Your task to perform on an android device: Go to Amazon Image 0: 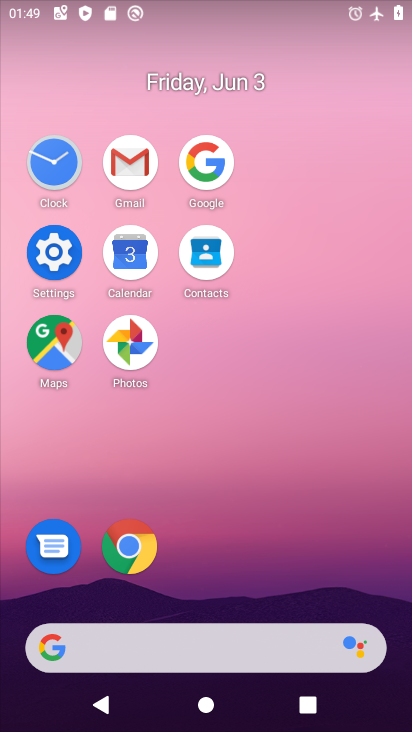
Step 0: click (145, 545)
Your task to perform on an android device: Go to Amazon Image 1: 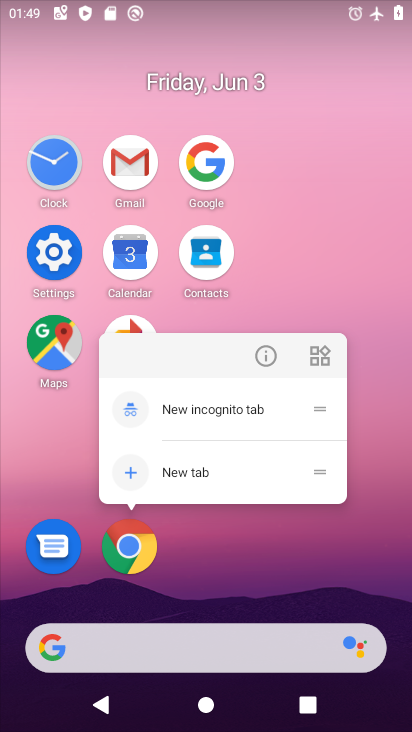
Step 1: click (123, 536)
Your task to perform on an android device: Go to Amazon Image 2: 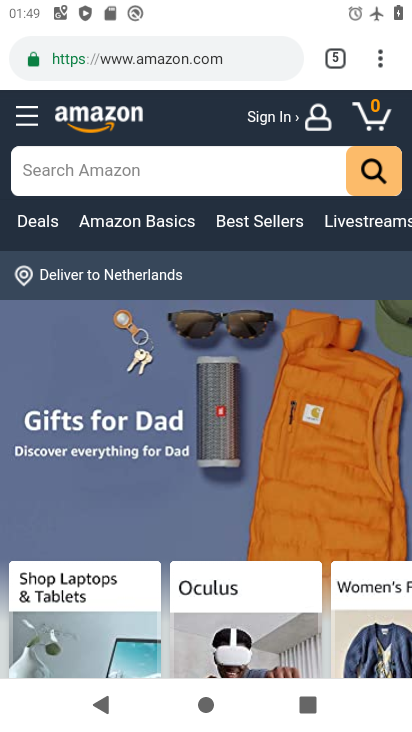
Step 2: task complete